Your task to perform on an android device: Is it going to rain this weekend? Image 0: 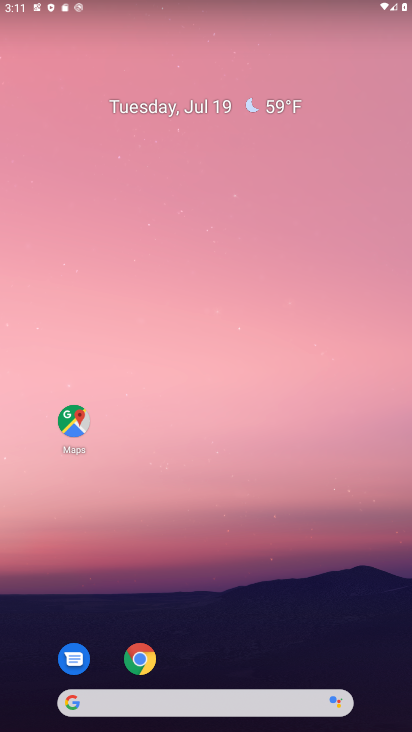
Step 0: drag from (204, 704) to (236, 300)
Your task to perform on an android device: Is it going to rain this weekend? Image 1: 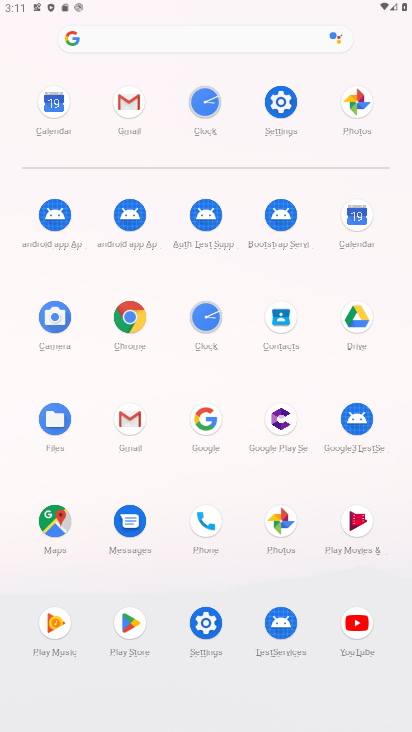
Step 1: click (205, 420)
Your task to perform on an android device: Is it going to rain this weekend? Image 2: 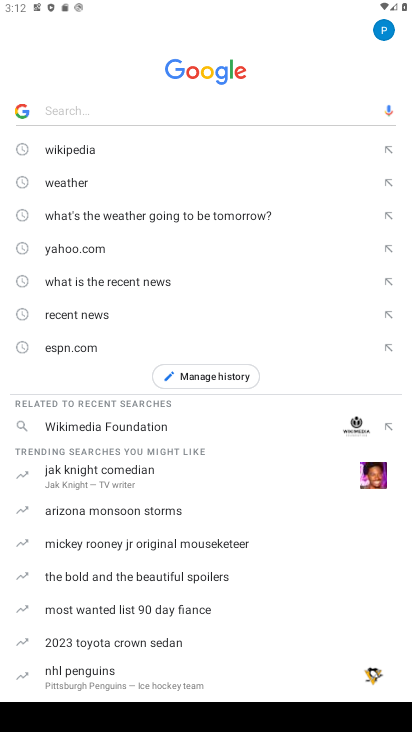
Step 2: click (286, 111)
Your task to perform on an android device: Is it going to rain this weekend? Image 3: 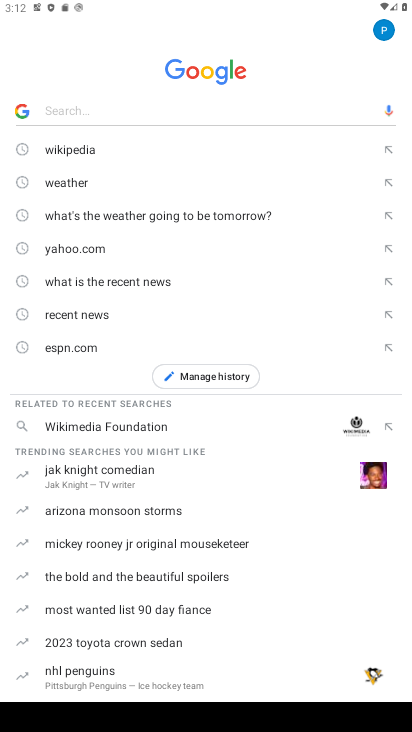
Step 3: type "Is it going to rain this weekend?"
Your task to perform on an android device: Is it going to rain this weekend? Image 4: 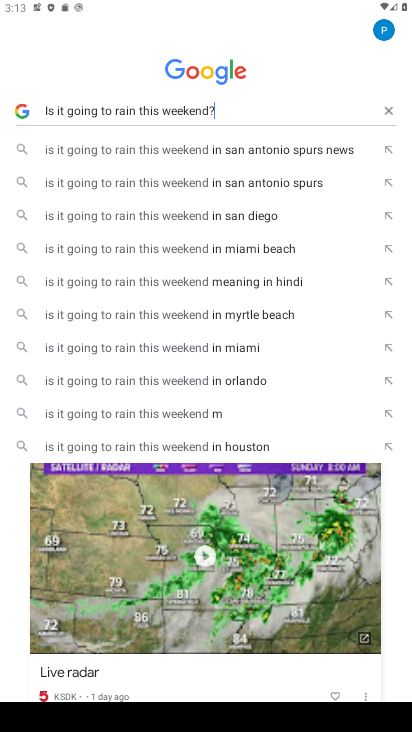
Step 4: click (224, 215)
Your task to perform on an android device: Is it going to rain this weekend? Image 5: 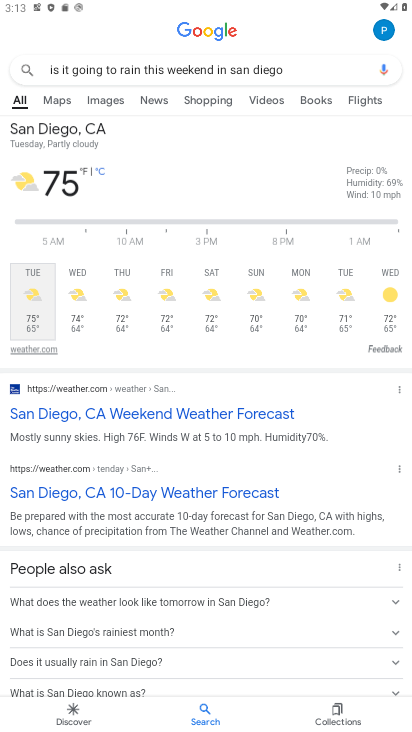
Step 5: click (212, 308)
Your task to perform on an android device: Is it going to rain this weekend? Image 6: 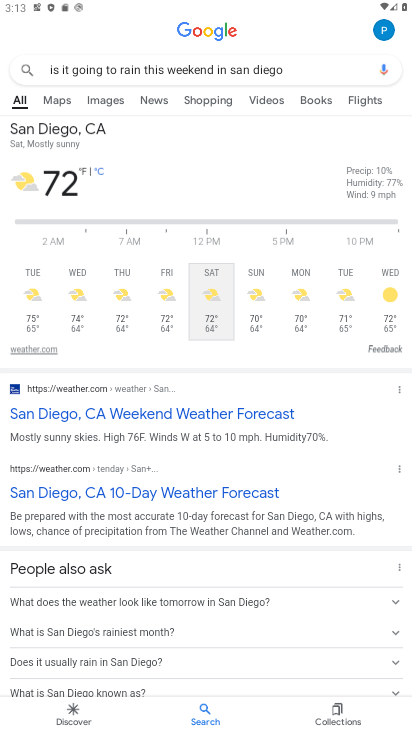
Step 6: task complete